Your task to perform on an android device: Open network settings Image 0: 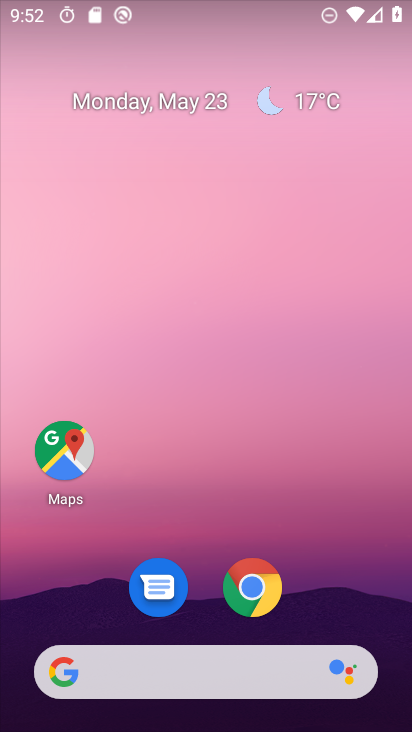
Step 0: drag from (207, 612) to (284, 66)
Your task to perform on an android device: Open network settings Image 1: 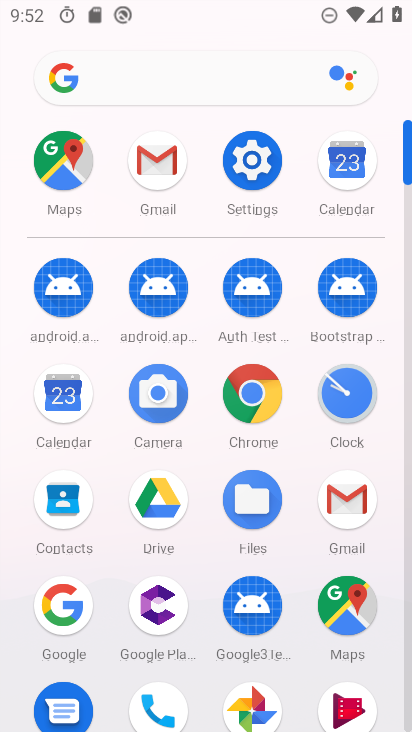
Step 1: click (257, 158)
Your task to perform on an android device: Open network settings Image 2: 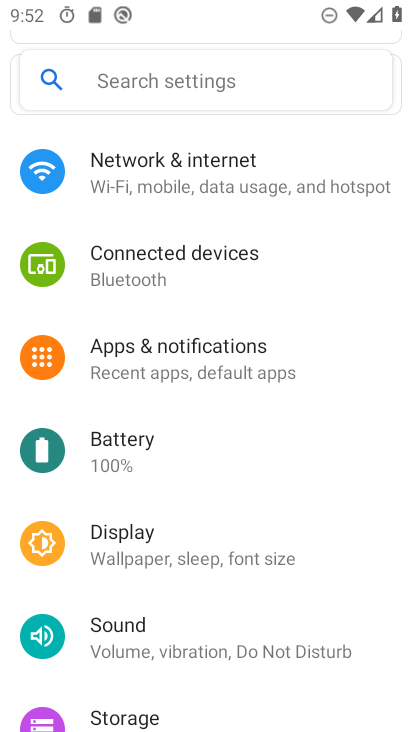
Step 2: click (234, 166)
Your task to perform on an android device: Open network settings Image 3: 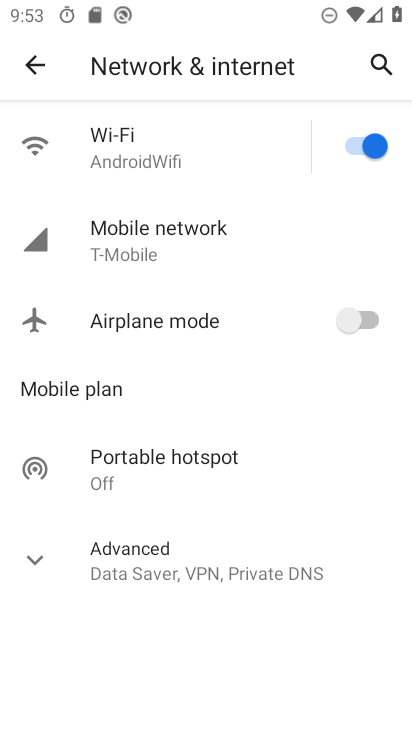
Step 3: task complete